Your task to perform on an android device: find snoozed emails in the gmail app Image 0: 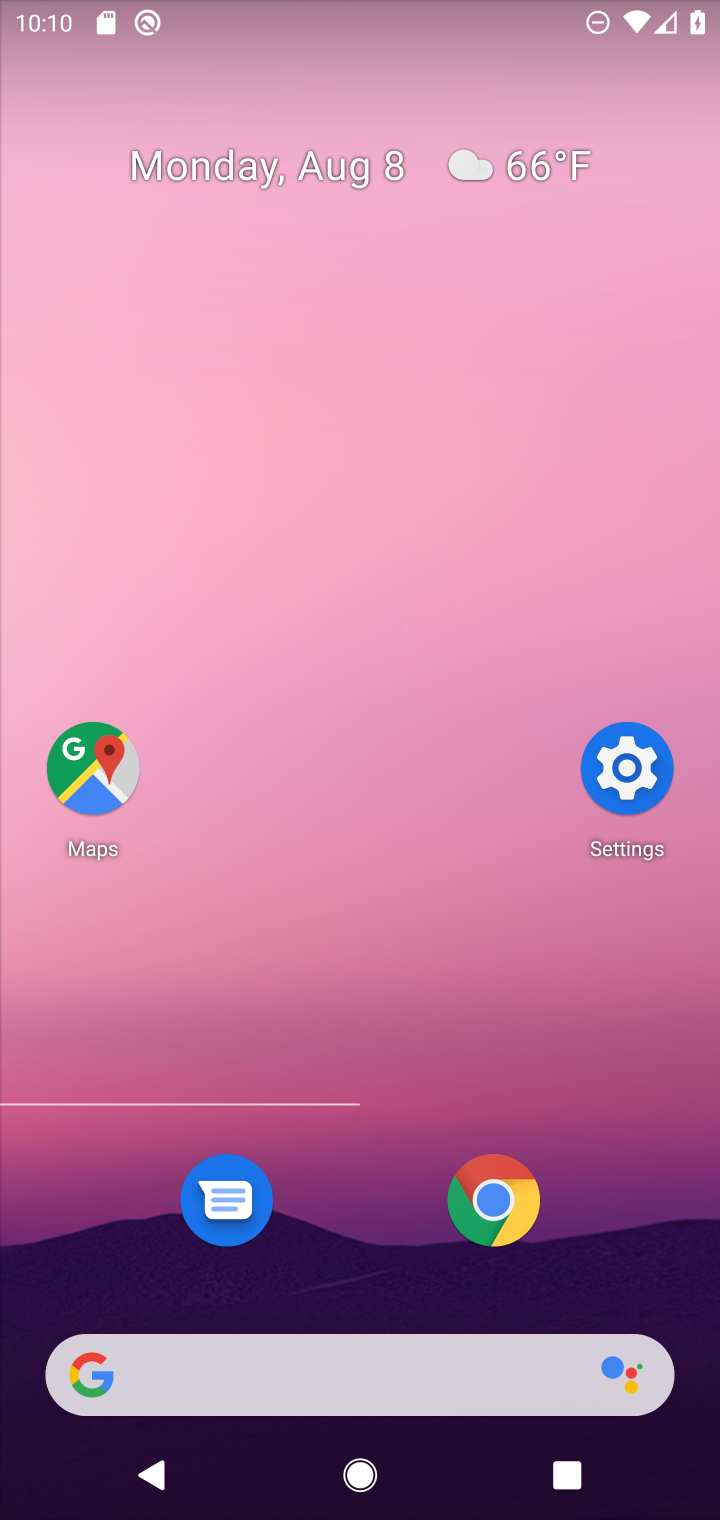
Step 0: press home button
Your task to perform on an android device: find snoozed emails in the gmail app Image 1: 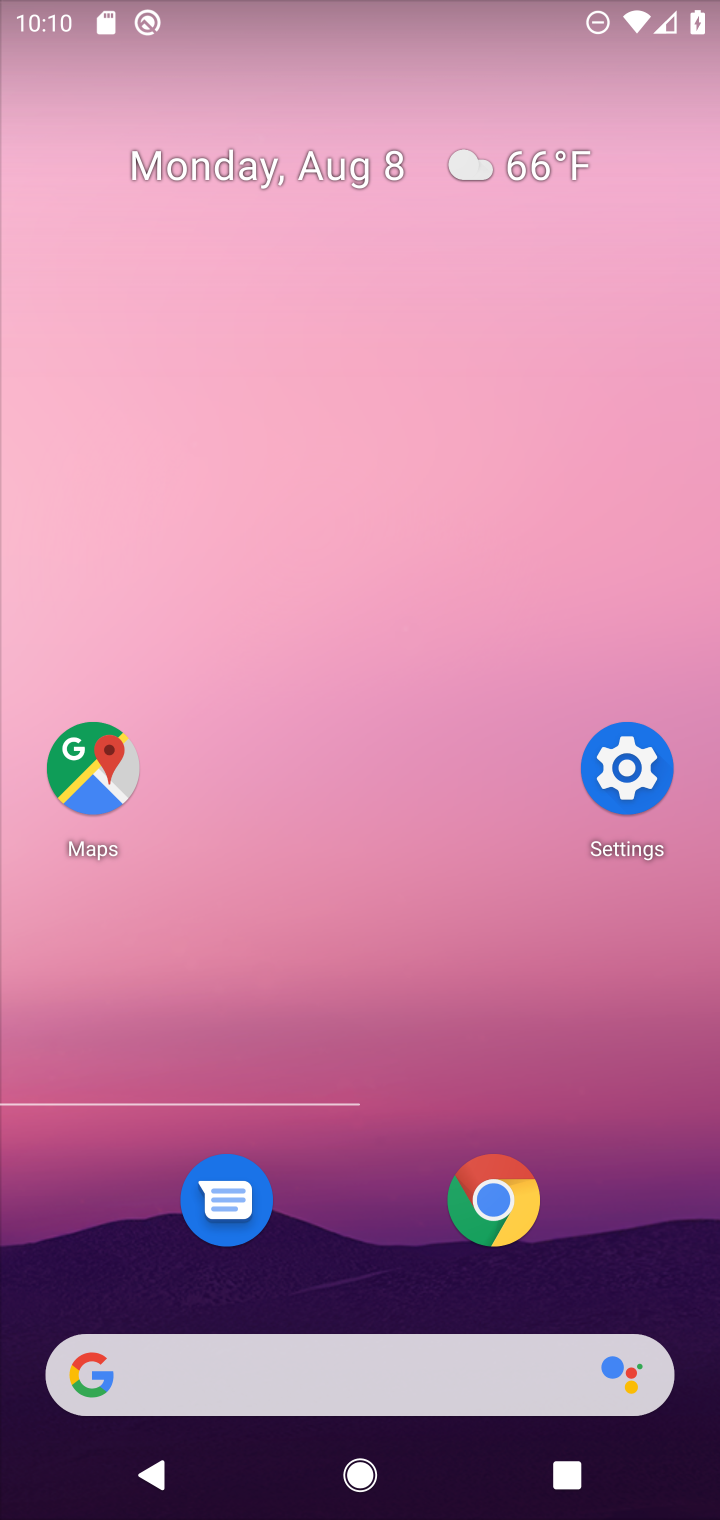
Step 1: drag from (335, 1234) to (638, 296)
Your task to perform on an android device: find snoozed emails in the gmail app Image 2: 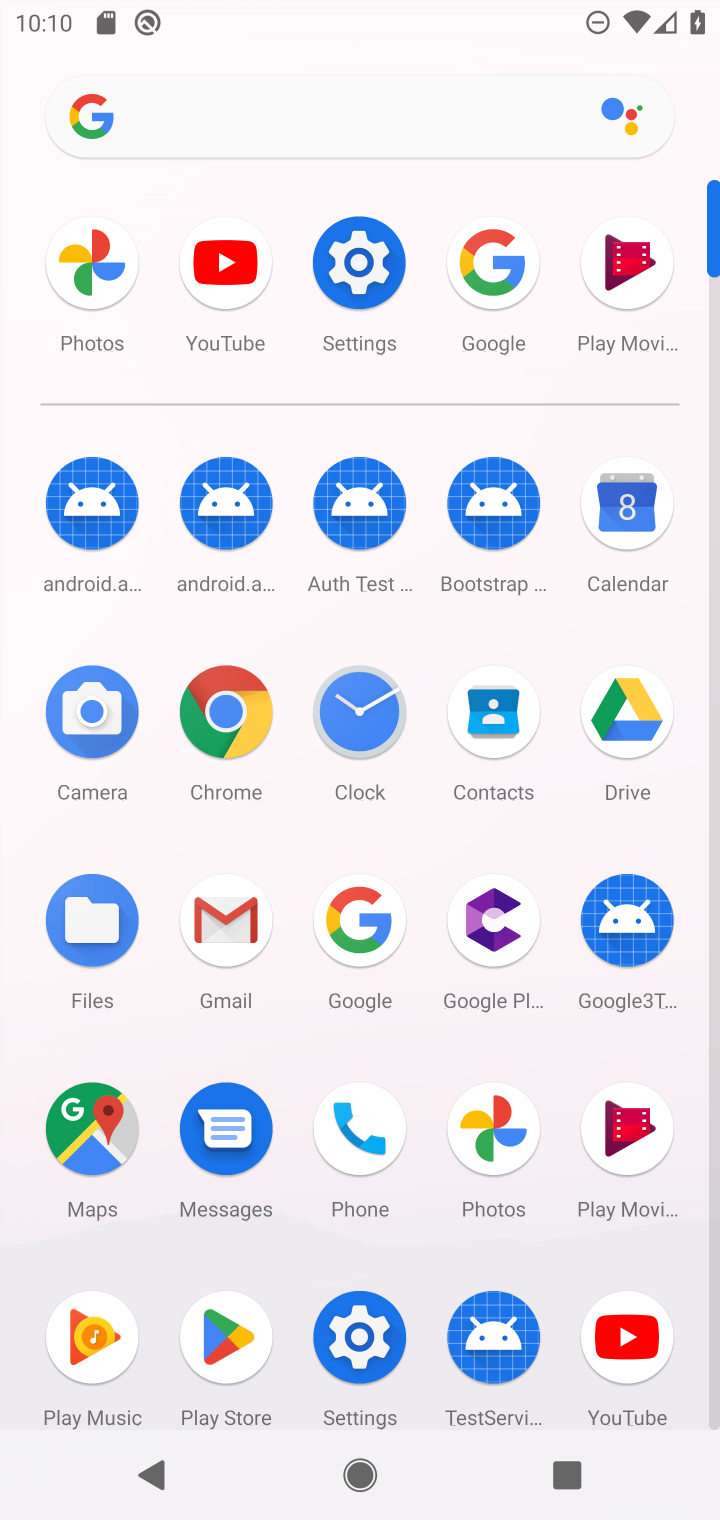
Step 2: click (227, 913)
Your task to perform on an android device: find snoozed emails in the gmail app Image 3: 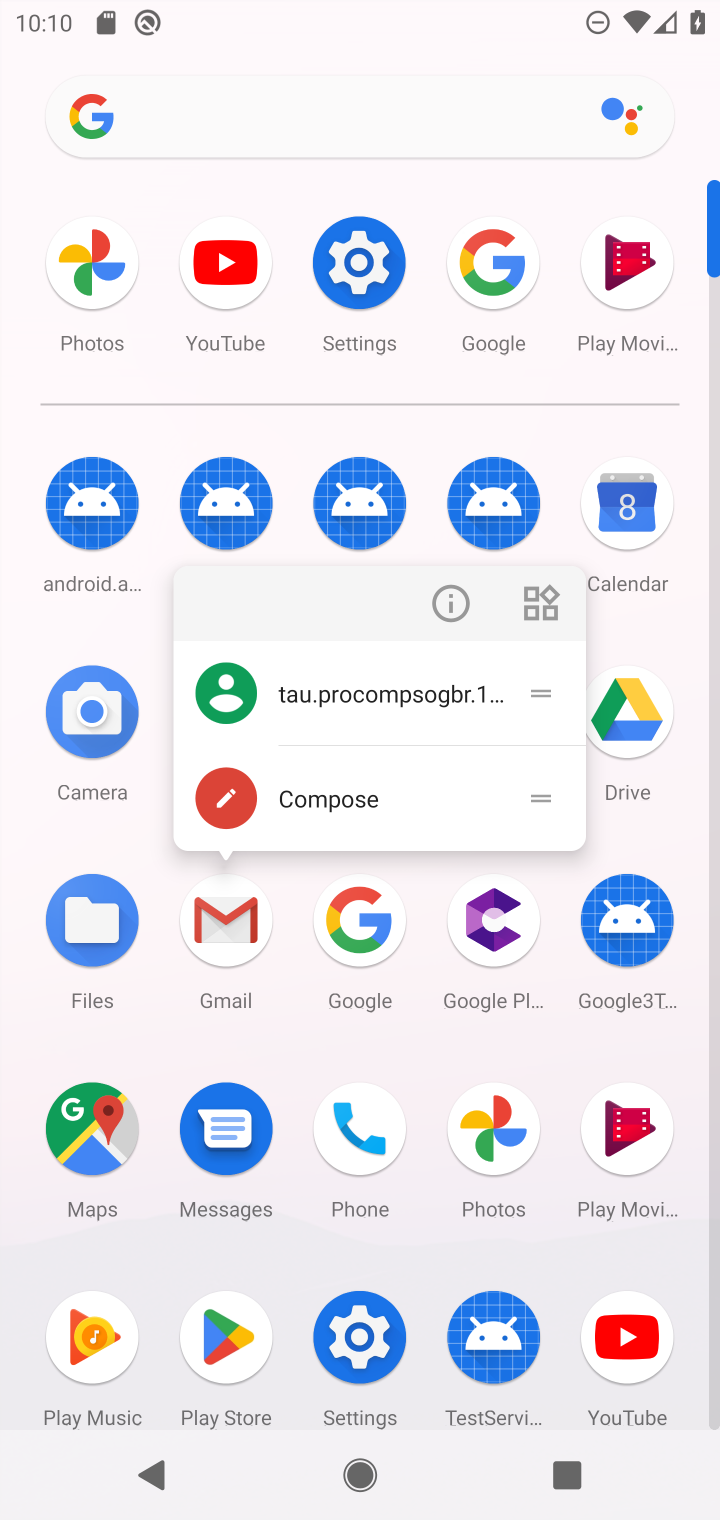
Step 3: click (227, 916)
Your task to perform on an android device: find snoozed emails in the gmail app Image 4: 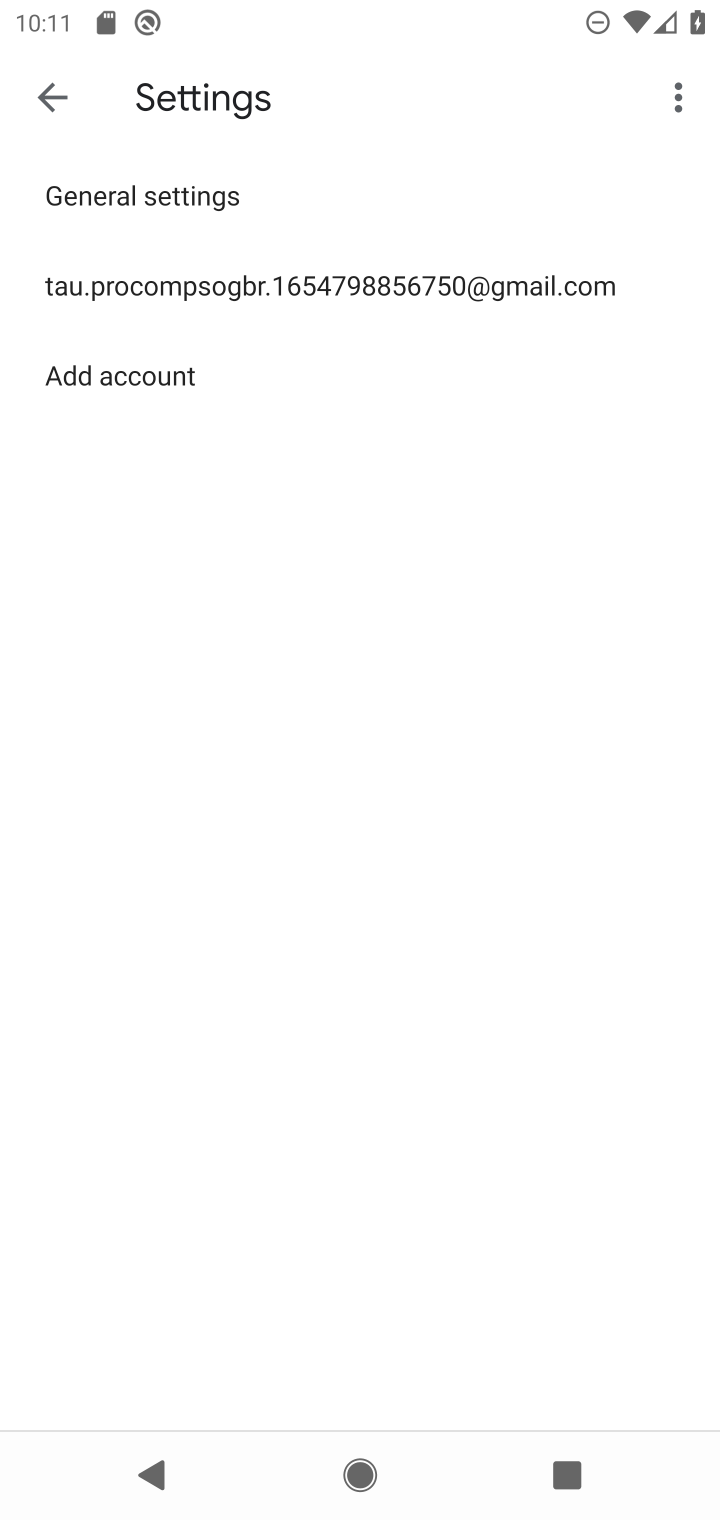
Step 4: click (39, 81)
Your task to perform on an android device: find snoozed emails in the gmail app Image 5: 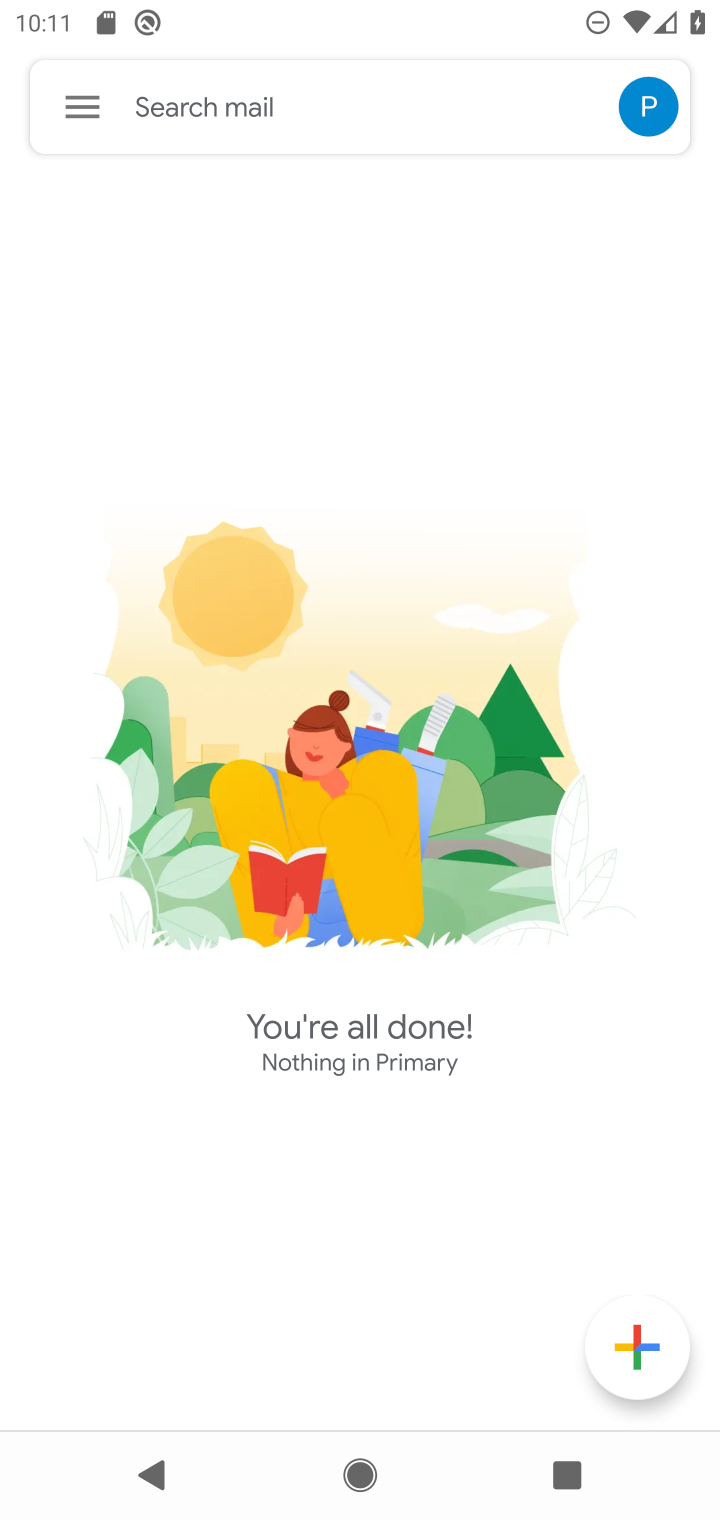
Step 5: click (86, 110)
Your task to perform on an android device: find snoozed emails in the gmail app Image 6: 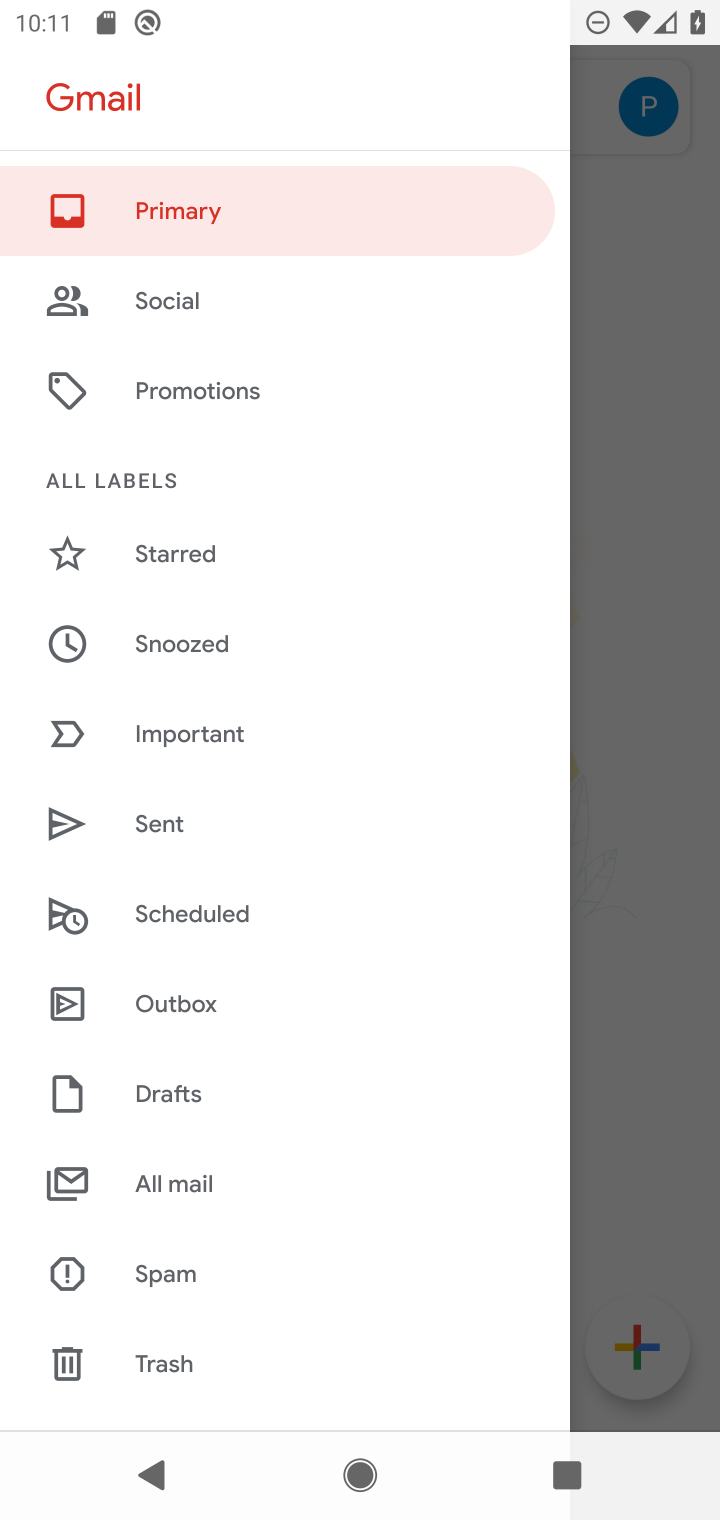
Step 6: click (167, 645)
Your task to perform on an android device: find snoozed emails in the gmail app Image 7: 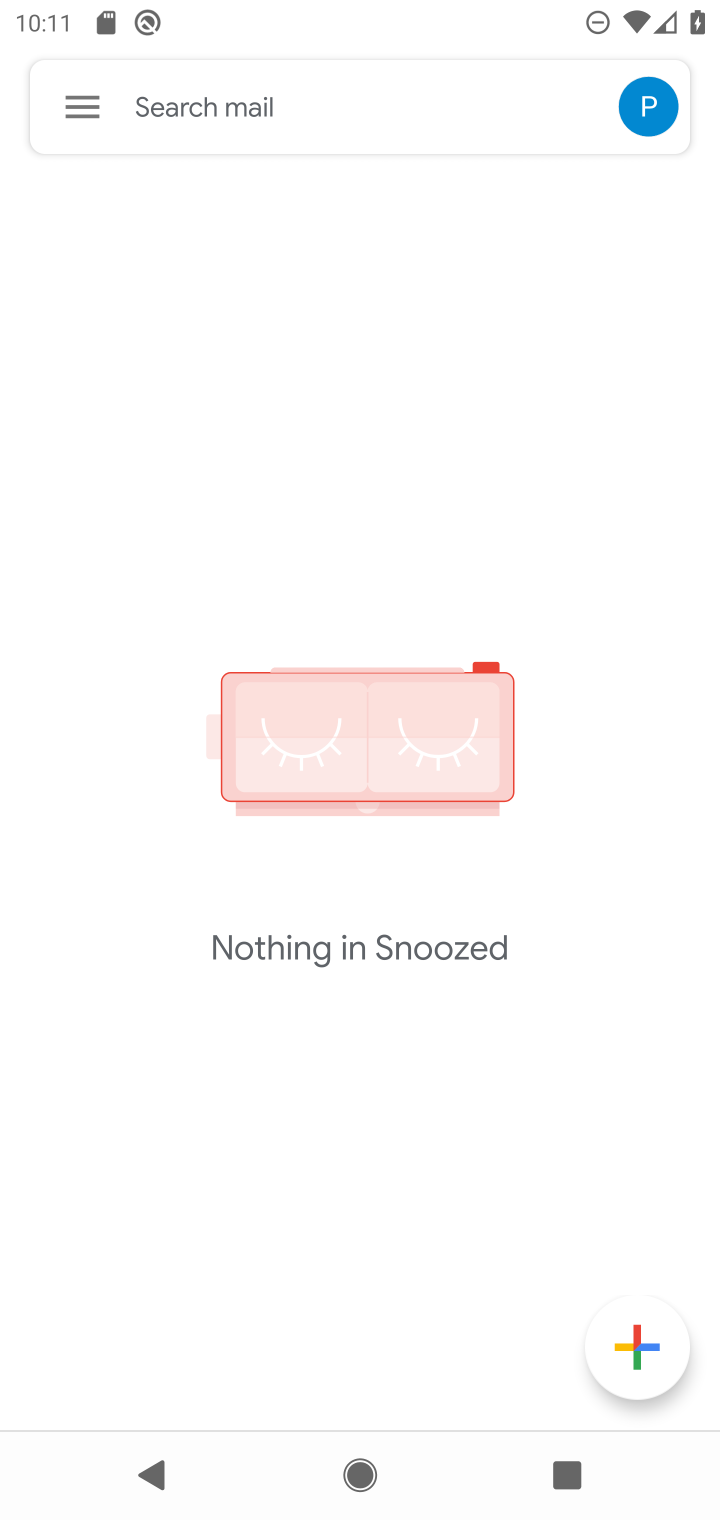
Step 7: task complete